Your task to perform on an android device: Toggle the flashlight Image 0: 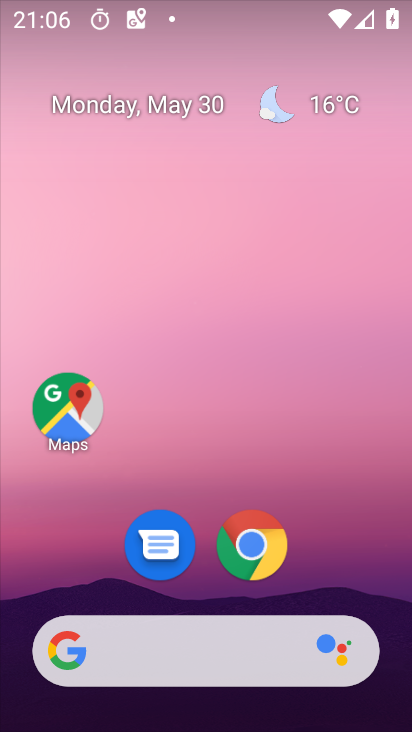
Step 0: drag from (324, 553) to (329, 291)
Your task to perform on an android device: Toggle the flashlight Image 1: 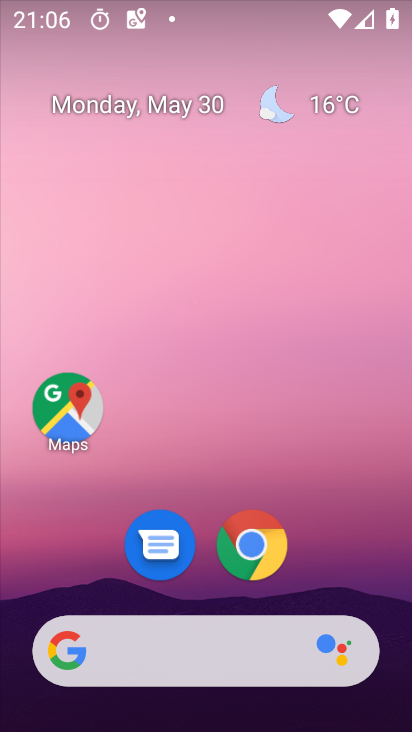
Step 1: drag from (324, 544) to (277, 192)
Your task to perform on an android device: Toggle the flashlight Image 2: 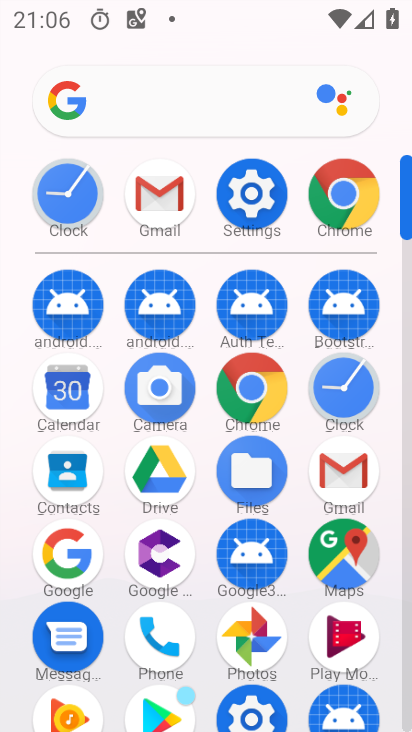
Step 2: click (243, 194)
Your task to perform on an android device: Toggle the flashlight Image 3: 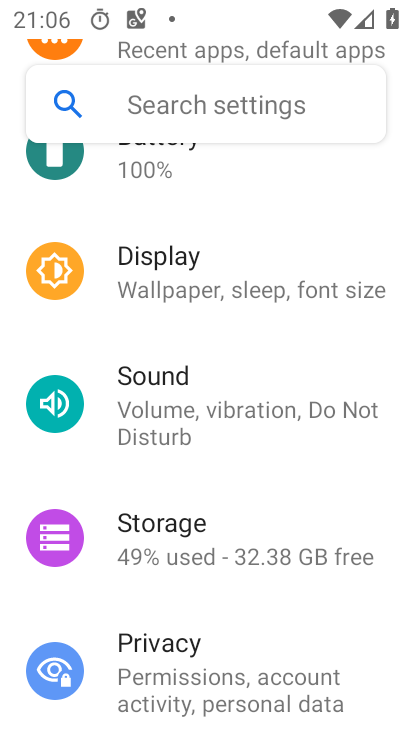
Step 3: drag from (274, 208) to (230, 491)
Your task to perform on an android device: Toggle the flashlight Image 4: 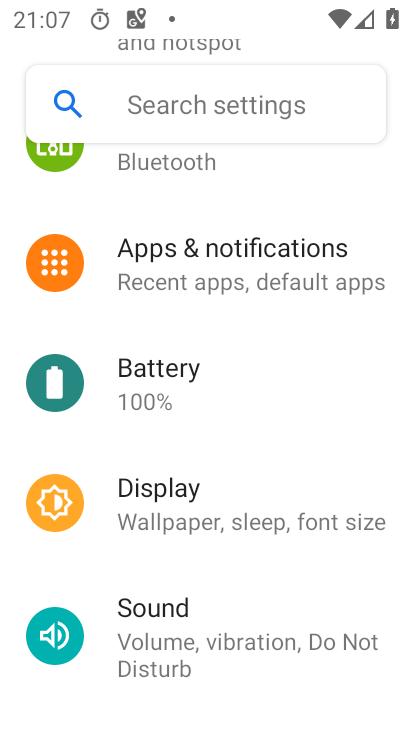
Step 4: click (246, 273)
Your task to perform on an android device: Toggle the flashlight Image 5: 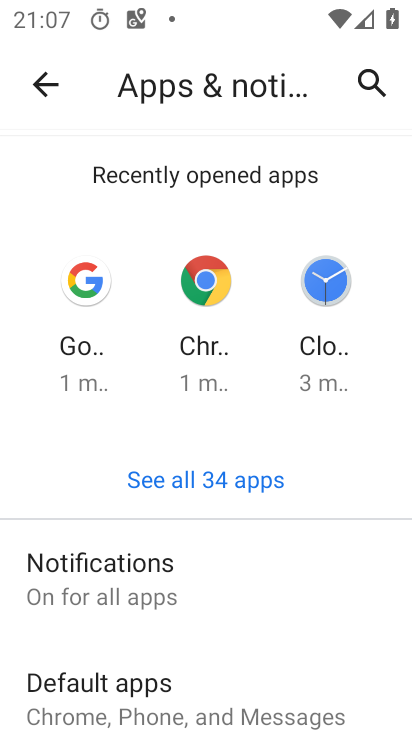
Step 5: drag from (222, 629) to (227, 336)
Your task to perform on an android device: Toggle the flashlight Image 6: 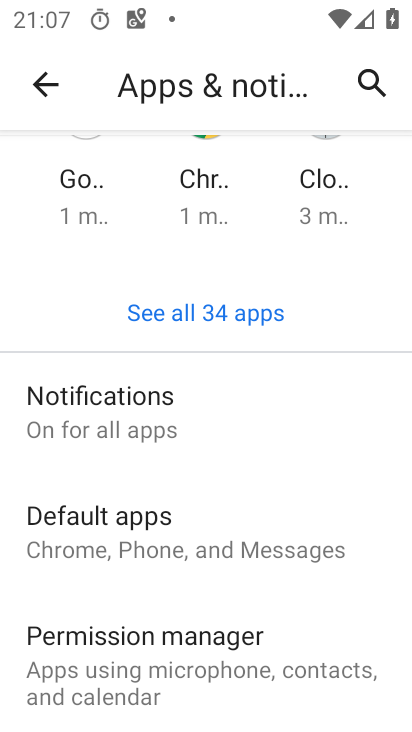
Step 6: drag from (238, 609) to (286, 321)
Your task to perform on an android device: Toggle the flashlight Image 7: 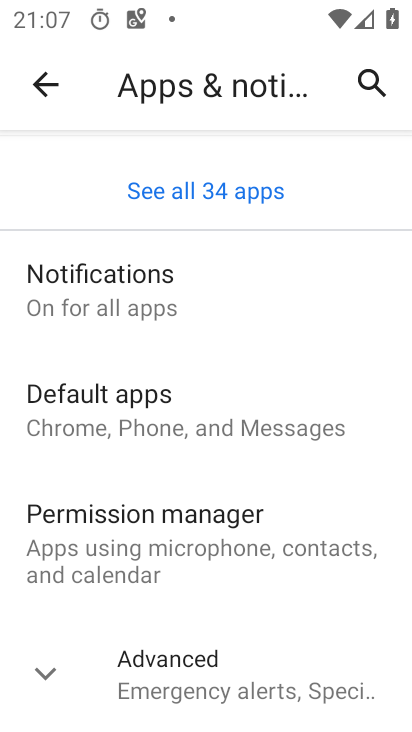
Step 7: click (236, 672)
Your task to perform on an android device: Toggle the flashlight Image 8: 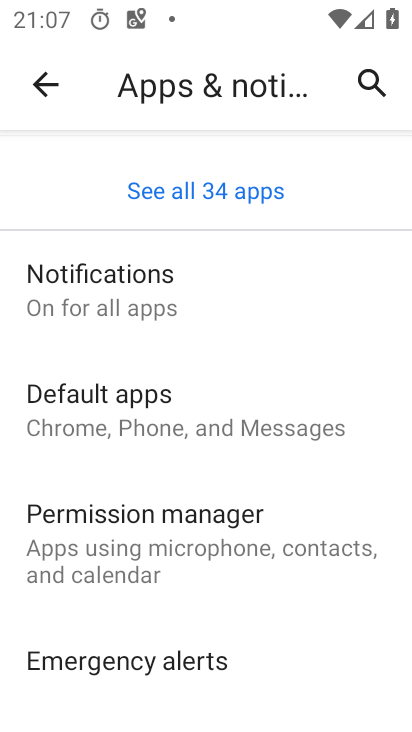
Step 8: drag from (264, 610) to (304, 210)
Your task to perform on an android device: Toggle the flashlight Image 9: 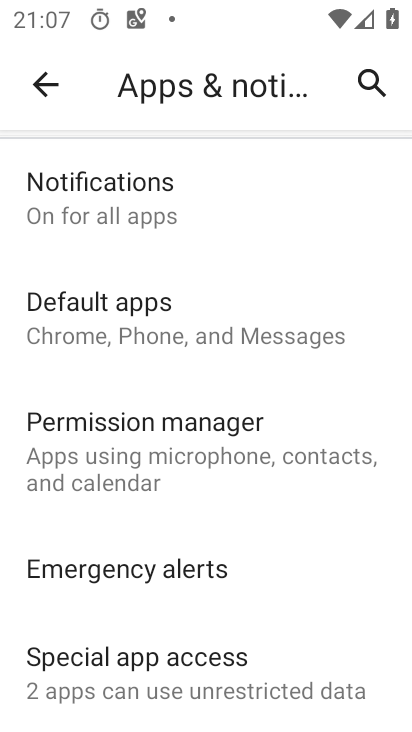
Step 9: click (181, 683)
Your task to perform on an android device: Toggle the flashlight Image 10: 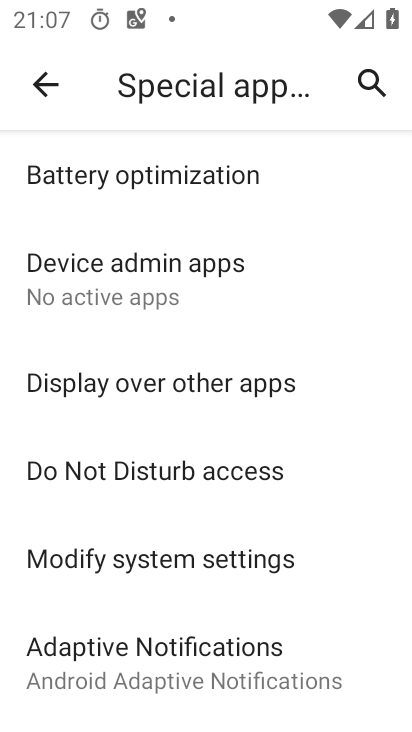
Step 10: task complete